Your task to perform on an android device: delete the emails in spam in the gmail app Image 0: 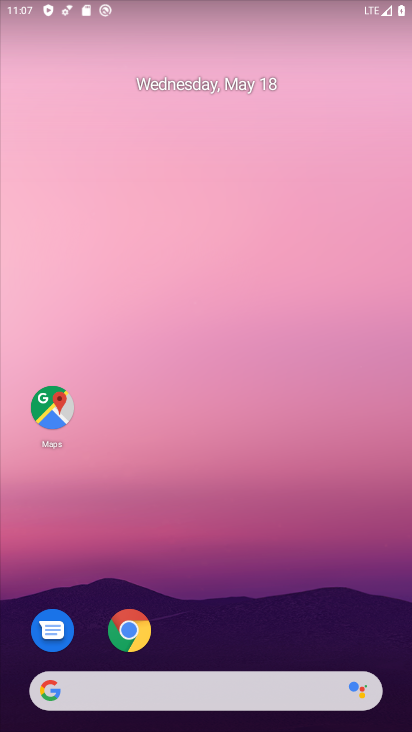
Step 0: drag from (191, 549) to (281, 221)
Your task to perform on an android device: delete the emails in spam in the gmail app Image 1: 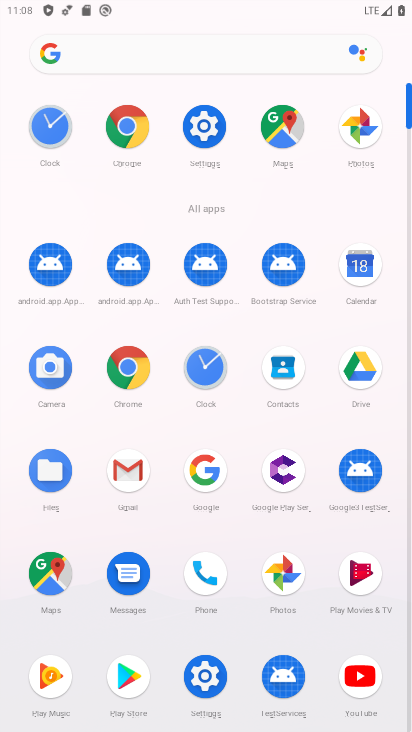
Step 1: click (134, 474)
Your task to perform on an android device: delete the emails in spam in the gmail app Image 2: 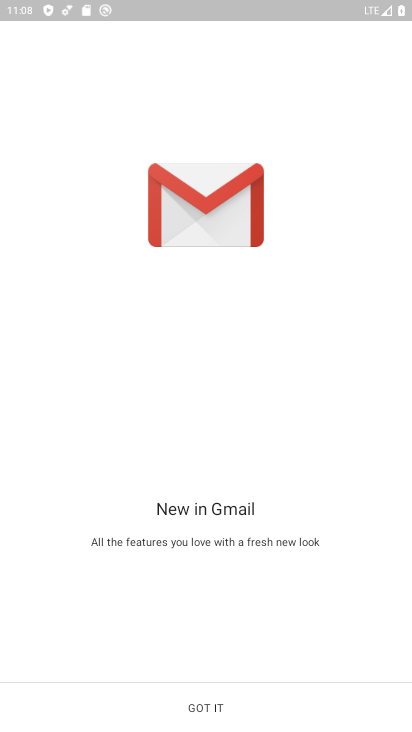
Step 2: click (221, 710)
Your task to perform on an android device: delete the emails in spam in the gmail app Image 3: 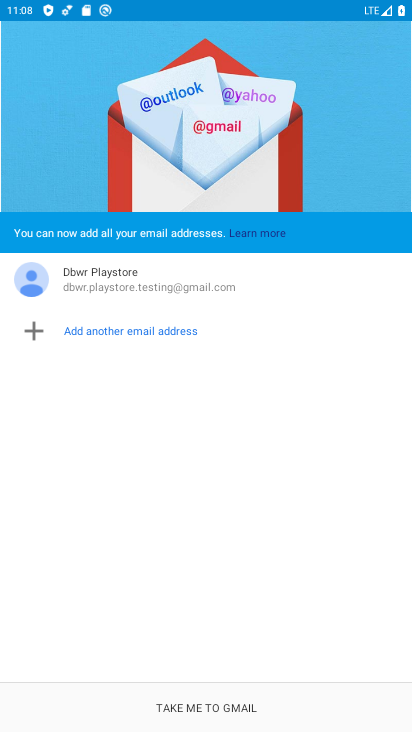
Step 3: click (221, 706)
Your task to perform on an android device: delete the emails in spam in the gmail app Image 4: 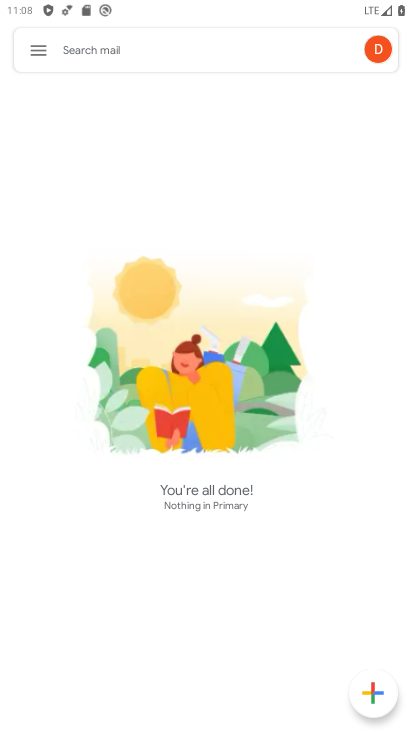
Step 4: click (30, 49)
Your task to perform on an android device: delete the emails in spam in the gmail app Image 5: 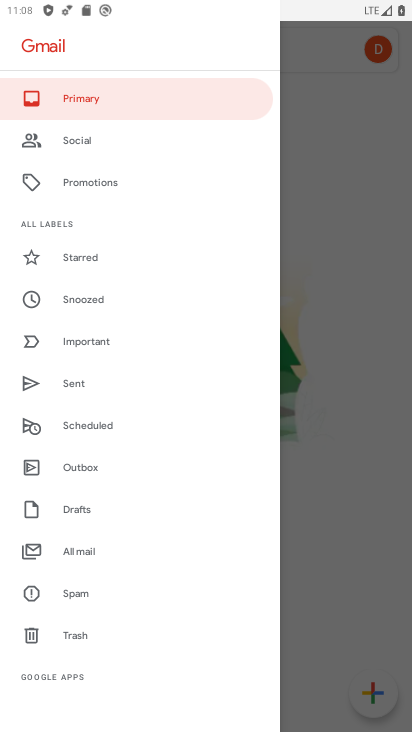
Step 5: click (80, 590)
Your task to perform on an android device: delete the emails in spam in the gmail app Image 6: 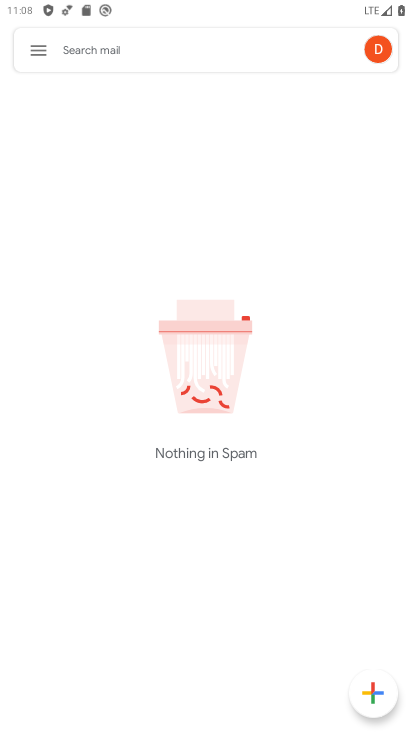
Step 6: task complete